Your task to perform on an android device: Open Google Chrome and open the bookmarks view Image 0: 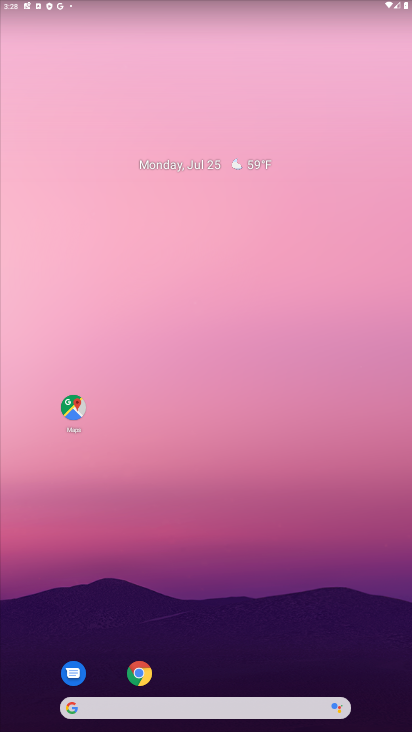
Step 0: click (131, 674)
Your task to perform on an android device: Open Google Chrome and open the bookmarks view Image 1: 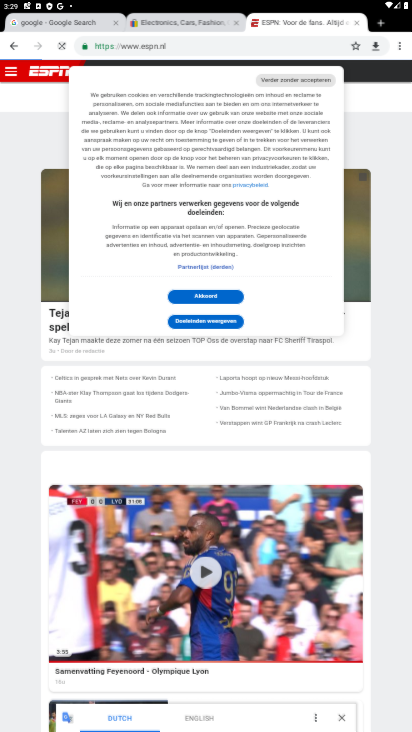
Step 1: click (402, 45)
Your task to perform on an android device: Open Google Chrome and open the bookmarks view Image 2: 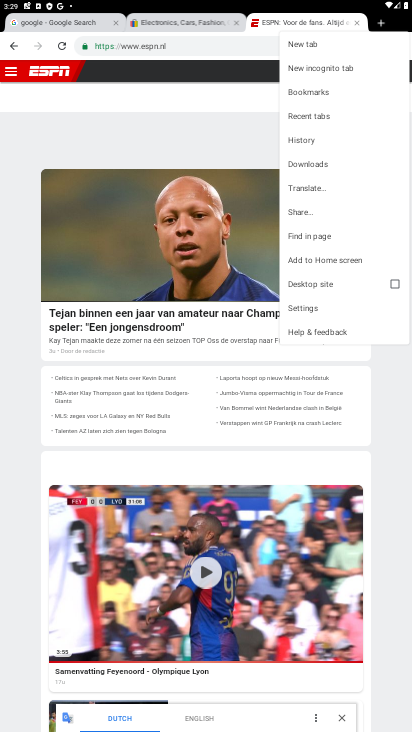
Step 2: click (322, 92)
Your task to perform on an android device: Open Google Chrome and open the bookmarks view Image 3: 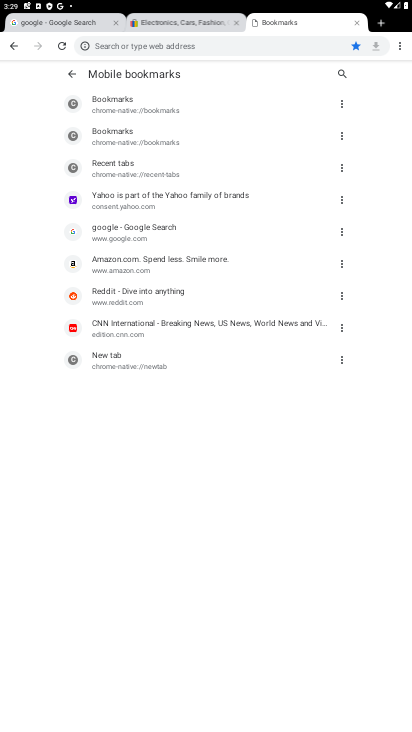
Step 3: task complete